Your task to perform on an android device: change the clock display to analog Image 0: 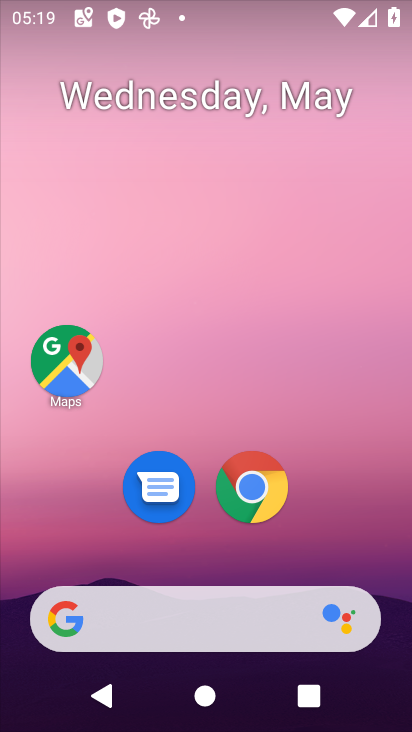
Step 0: drag from (334, 529) to (376, 134)
Your task to perform on an android device: change the clock display to analog Image 1: 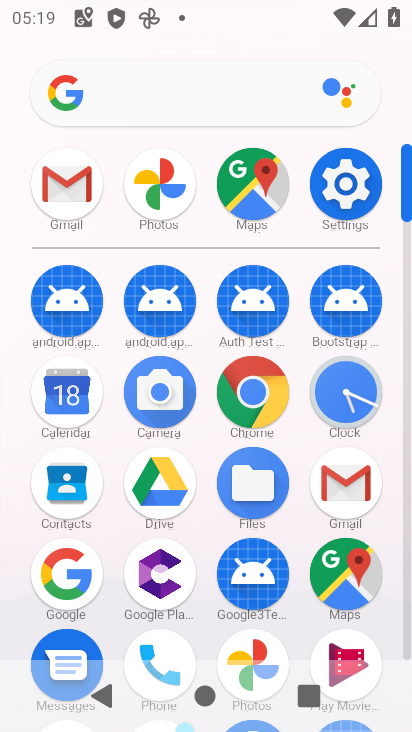
Step 1: click (368, 208)
Your task to perform on an android device: change the clock display to analog Image 2: 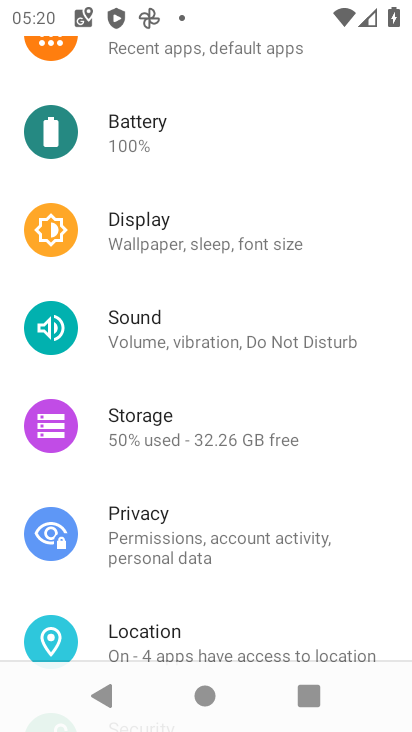
Step 2: press home button
Your task to perform on an android device: change the clock display to analog Image 3: 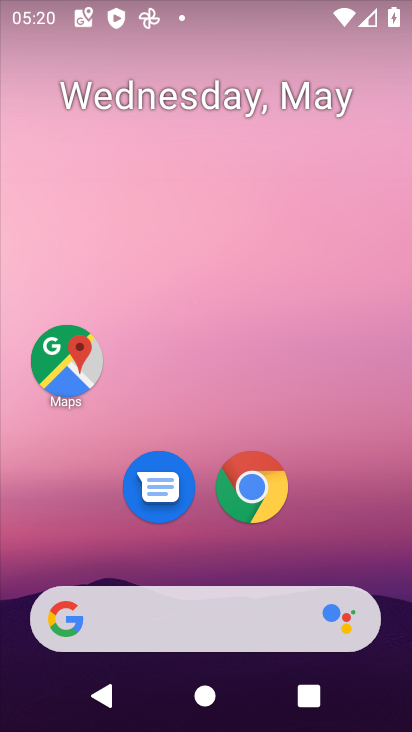
Step 3: drag from (356, 504) to (312, 187)
Your task to perform on an android device: change the clock display to analog Image 4: 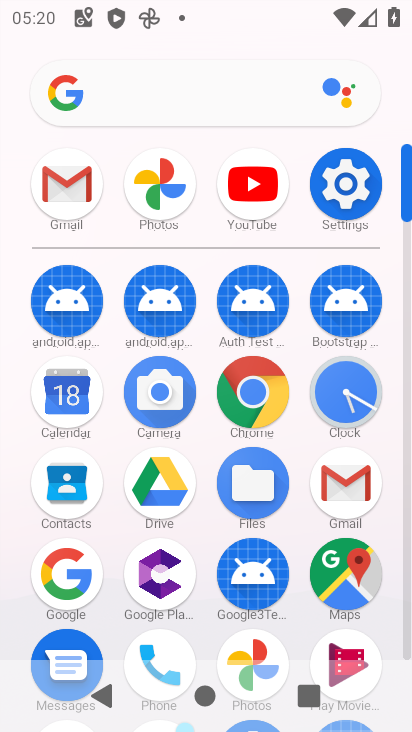
Step 4: click (357, 170)
Your task to perform on an android device: change the clock display to analog Image 5: 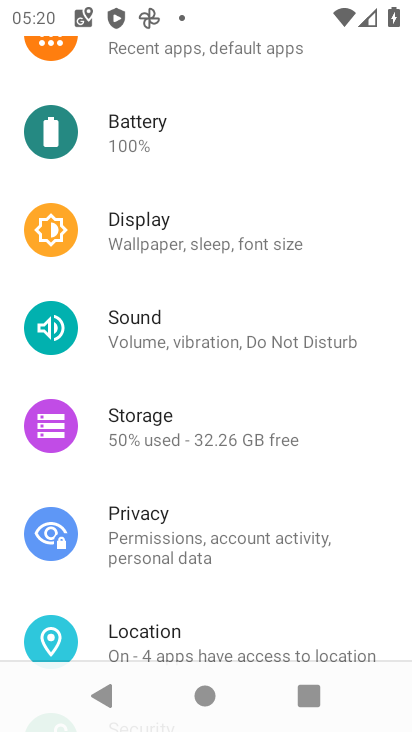
Step 5: press home button
Your task to perform on an android device: change the clock display to analog Image 6: 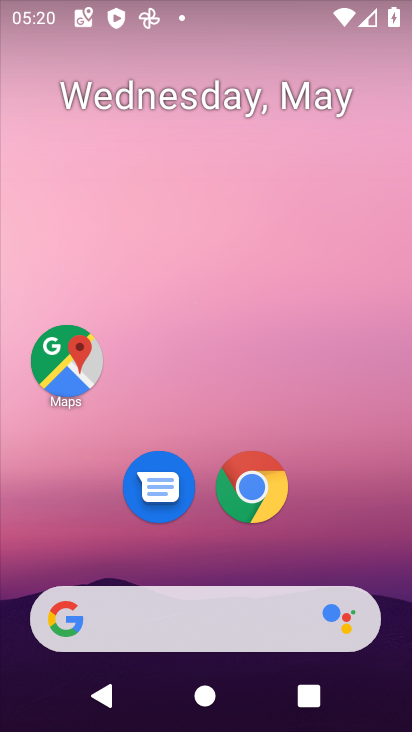
Step 6: drag from (357, 497) to (330, 202)
Your task to perform on an android device: change the clock display to analog Image 7: 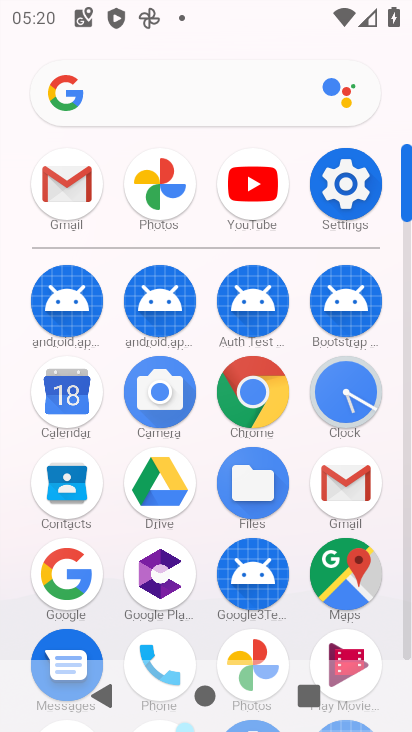
Step 7: click (360, 386)
Your task to perform on an android device: change the clock display to analog Image 8: 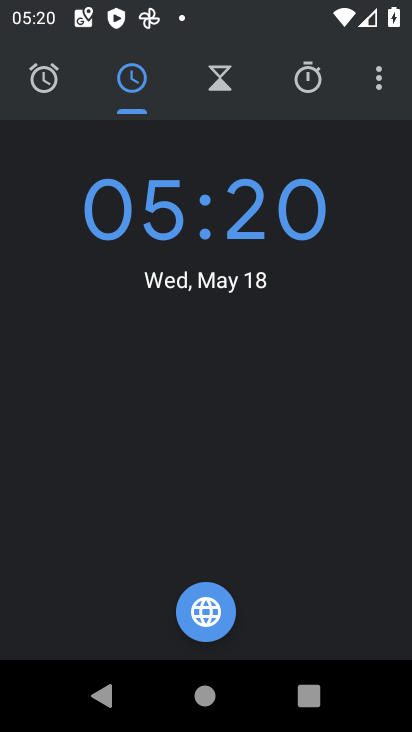
Step 8: click (388, 97)
Your task to perform on an android device: change the clock display to analog Image 9: 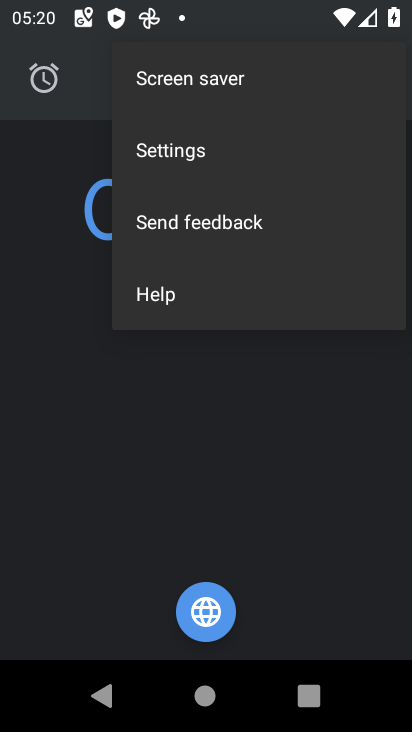
Step 9: click (217, 168)
Your task to perform on an android device: change the clock display to analog Image 10: 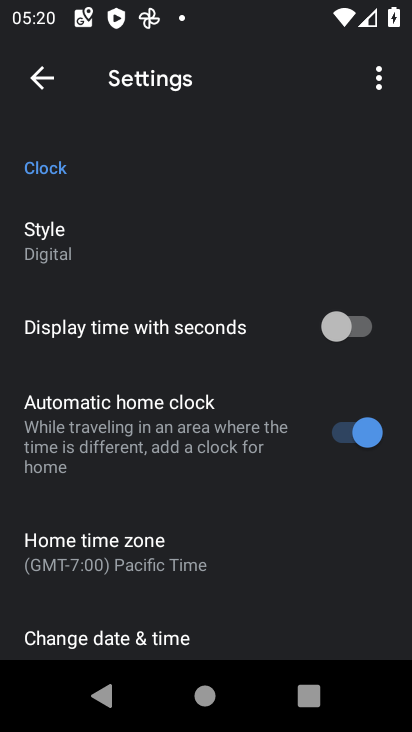
Step 10: drag from (210, 576) to (210, 541)
Your task to perform on an android device: change the clock display to analog Image 11: 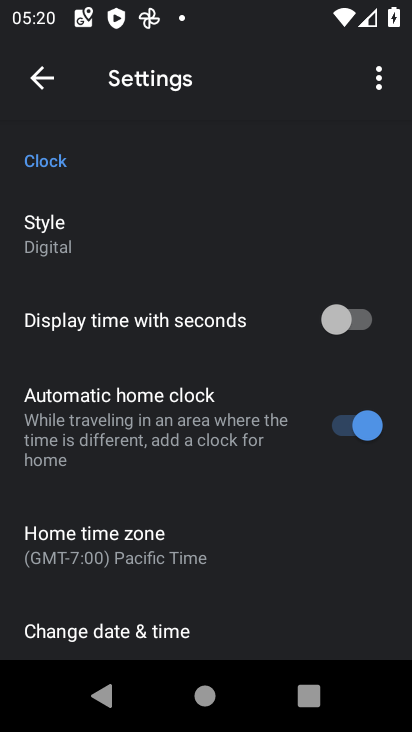
Step 11: click (194, 192)
Your task to perform on an android device: change the clock display to analog Image 12: 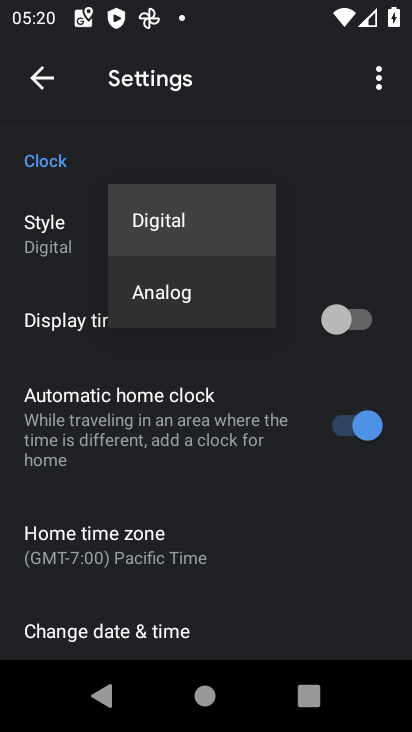
Step 12: click (180, 330)
Your task to perform on an android device: change the clock display to analog Image 13: 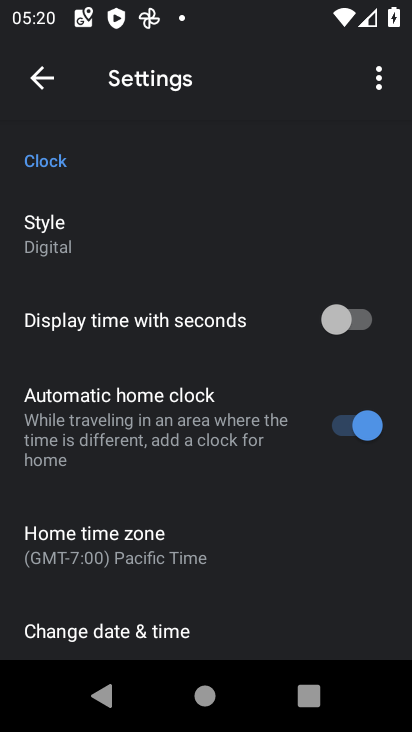
Step 13: task complete